Your task to perform on an android device: manage bookmarks in the chrome app Image 0: 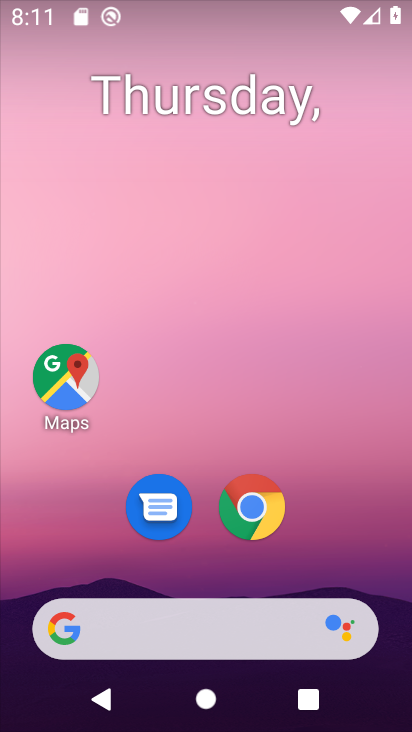
Step 0: click (254, 501)
Your task to perform on an android device: manage bookmarks in the chrome app Image 1: 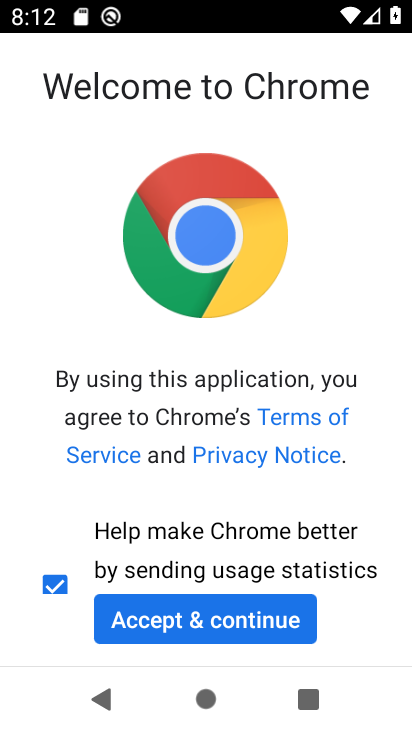
Step 1: click (232, 619)
Your task to perform on an android device: manage bookmarks in the chrome app Image 2: 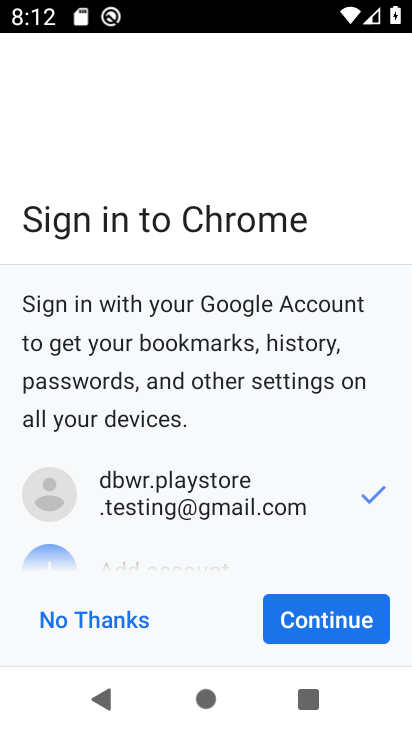
Step 2: click (321, 628)
Your task to perform on an android device: manage bookmarks in the chrome app Image 3: 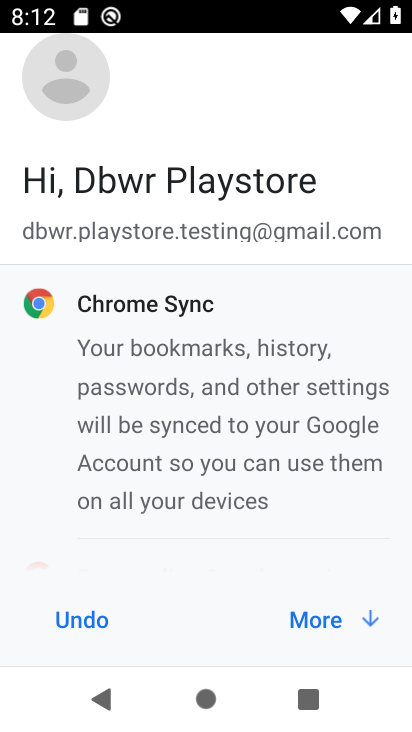
Step 3: click (329, 620)
Your task to perform on an android device: manage bookmarks in the chrome app Image 4: 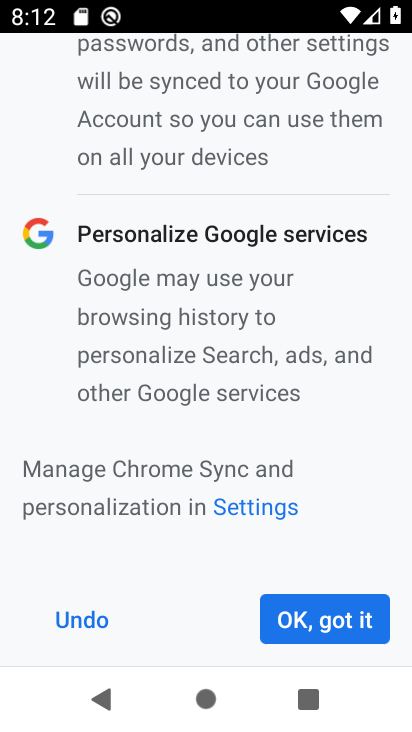
Step 4: click (329, 620)
Your task to perform on an android device: manage bookmarks in the chrome app Image 5: 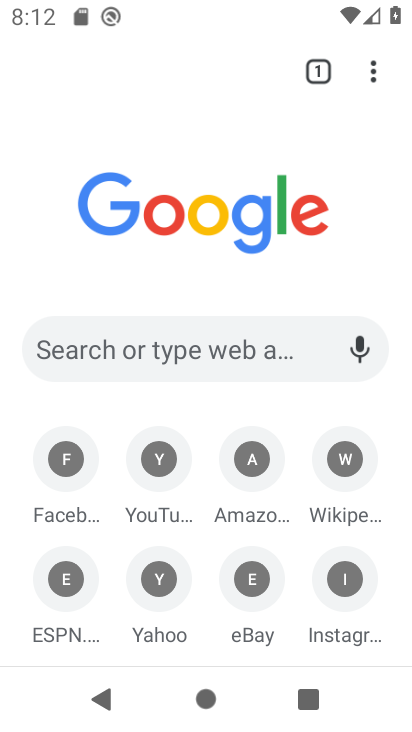
Step 5: click (378, 76)
Your task to perform on an android device: manage bookmarks in the chrome app Image 6: 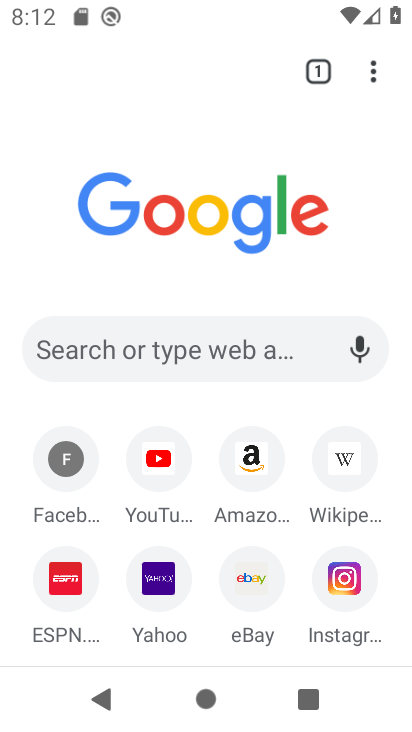
Step 6: click (374, 75)
Your task to perform on an android device: manage bookmarks in the chrome app Image 7: 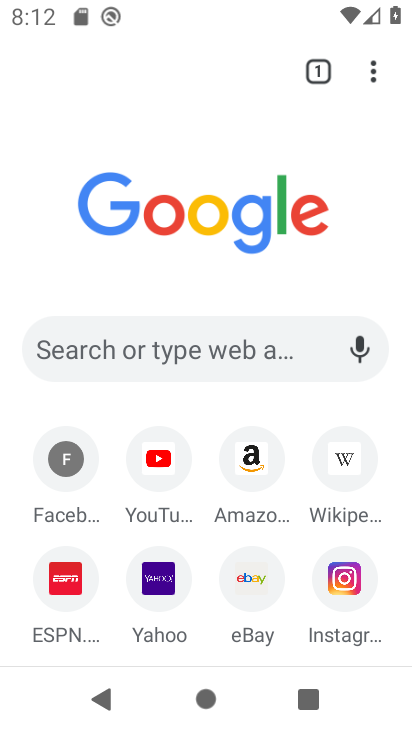
Step 7: click (369, 62)
Your task to perform on an android device: manage bookmarks in the chrome app Image 8: 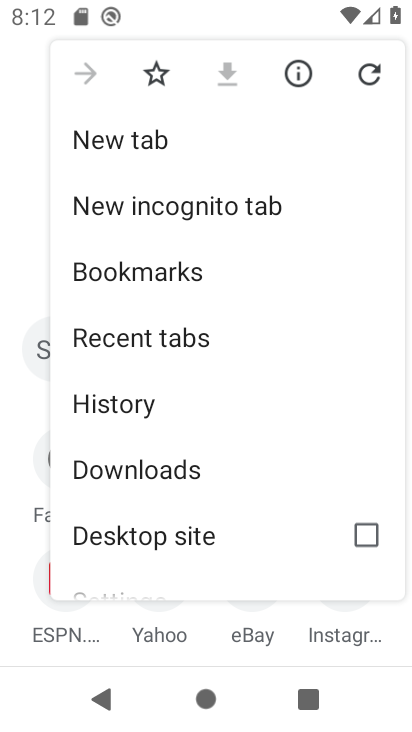
Step 8: click (225, 264)
Your task to perform on an android device: manage bookmarks in the chrome app Image 9: 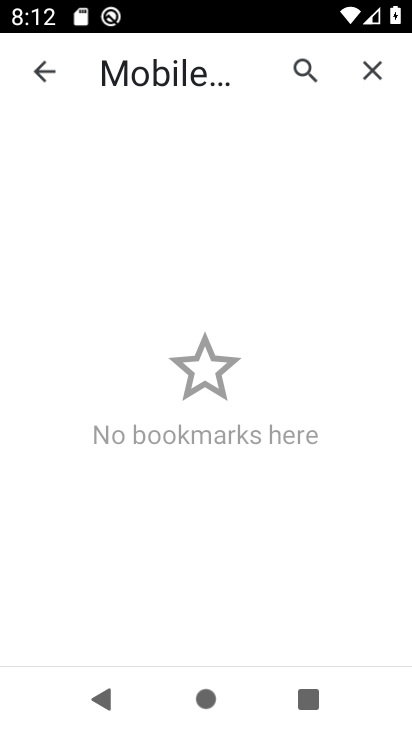
Step 9: task complete